Your task to perform on an android device: set default search engine in the chrome app Image 0: 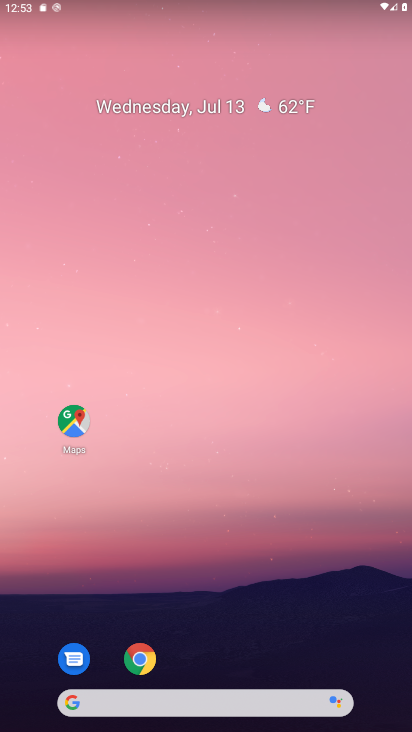
Step 0: drag from (206, 694) to (98, 109)
Your task to perform on an android device: set default search engine in the chrome app Image 1: 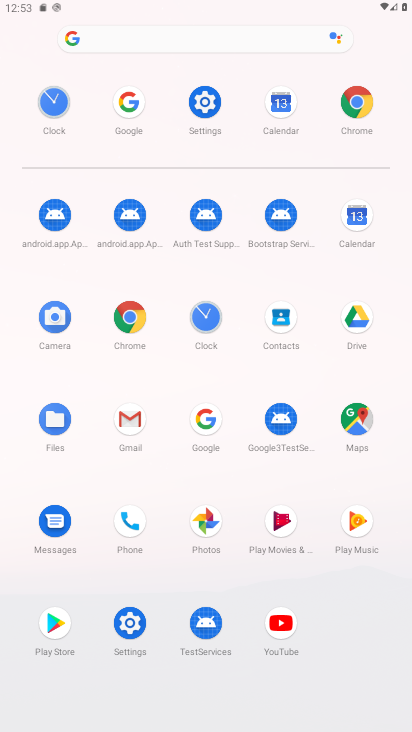
Step 1: click (128, 315)
Your task to perform on an android device: set default search engine in the chrome app Image 2: 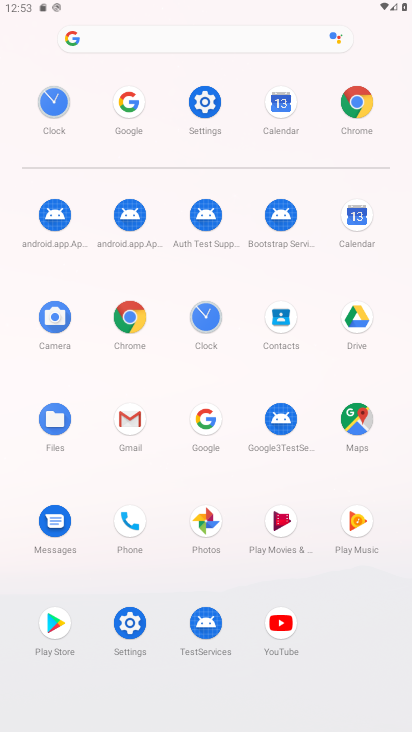
Step 2: click (128, 315)
Your task to perform on an android device: set default search engine in the chrome app Image 3: 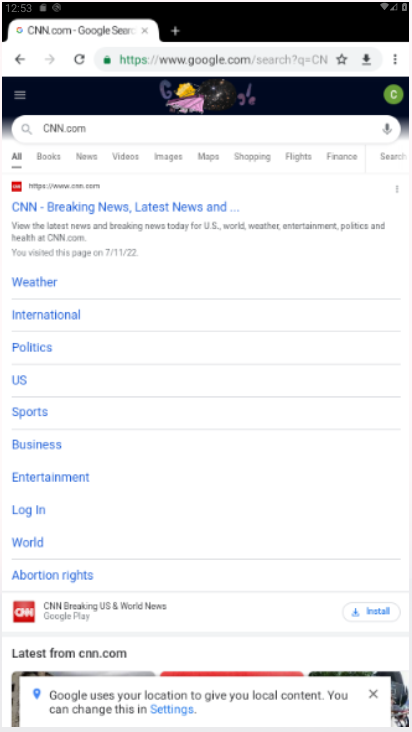
Step 3: click (129, 314)
Your task to perform on an android device: set default search engine in the chrome app Image 4: 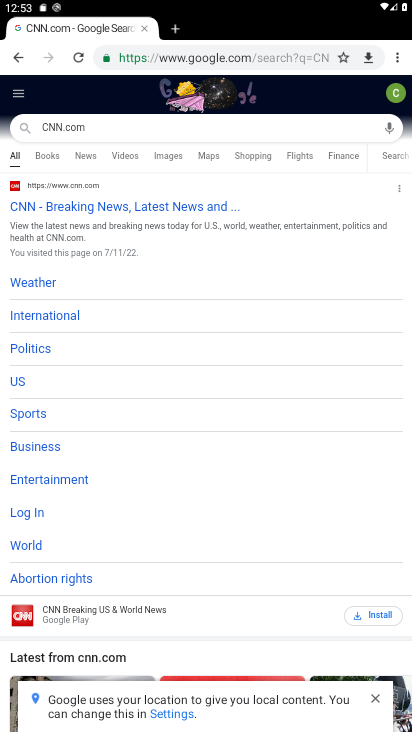
Step 4: click (17, 52)
Your task to perform on an android device: set default search engine in the chrome app Image 5: 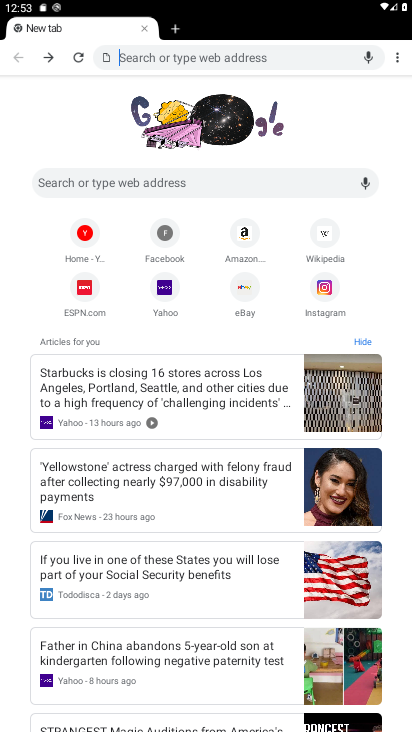
Step 5: drag from (398, 57) to (280, 290)
Your task to perform on an android device: set default search engine in the chrome app Image 6: 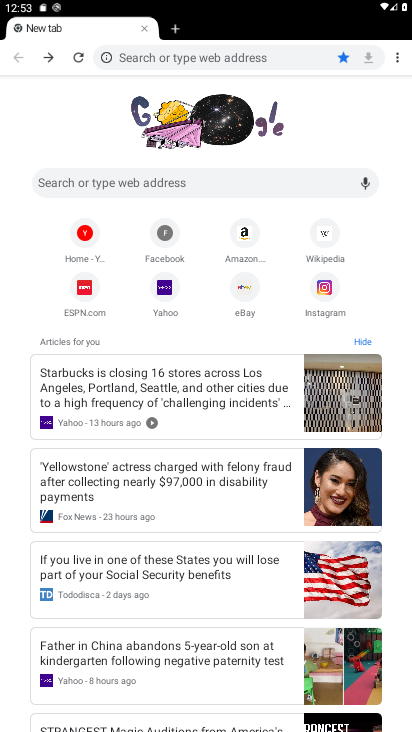
Step 6: click (279, 304)
Your task to perform on an android device: set default search engine in the chrome app Image 7: 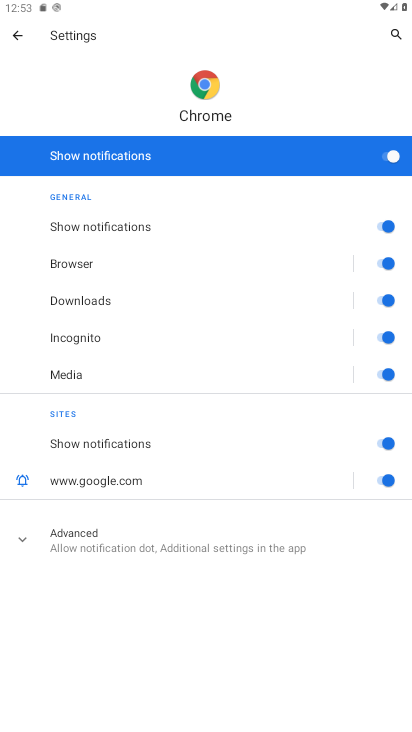
Step 7: click (12, 25)
Your task to perform on an android device: set default search engine in the chrome app Image 8: 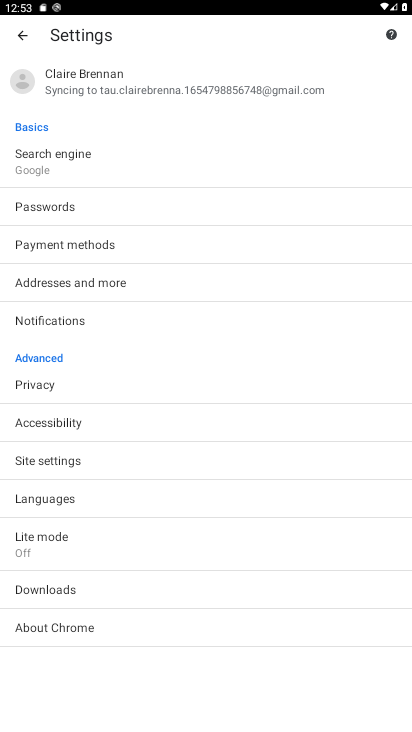
Step 8: click (32, 161)
Your task to perform on an android device: set default search engine in the chrome app Image 9: 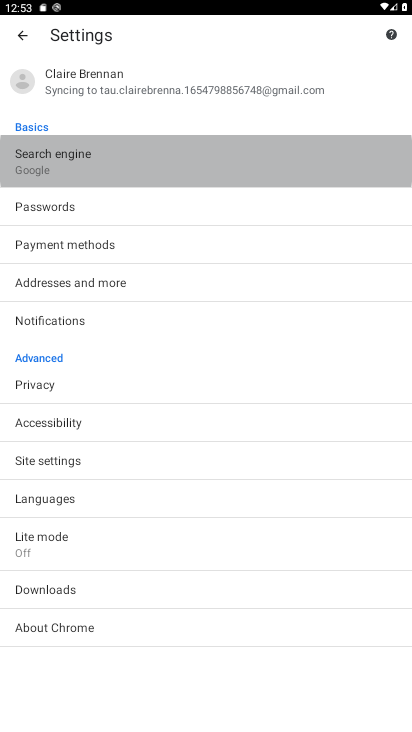
Step 9: click (32, 161)
Your task to perform on an android device: set default search engine in the chrome app Image 10: 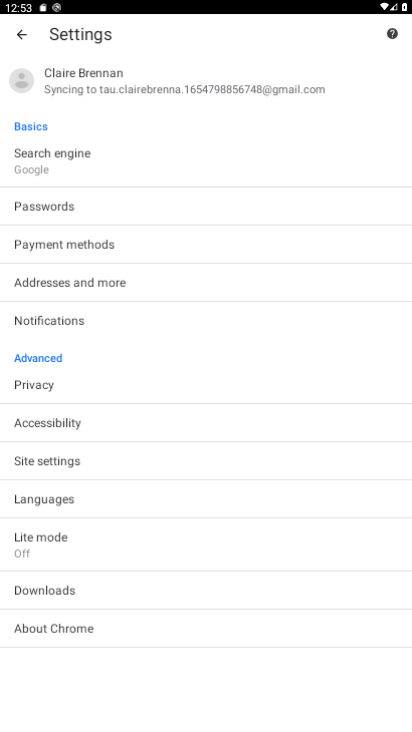
Step 10: click (32, 161)
Your task to perform on an android device: set default search engine in the chrome app Image 11: 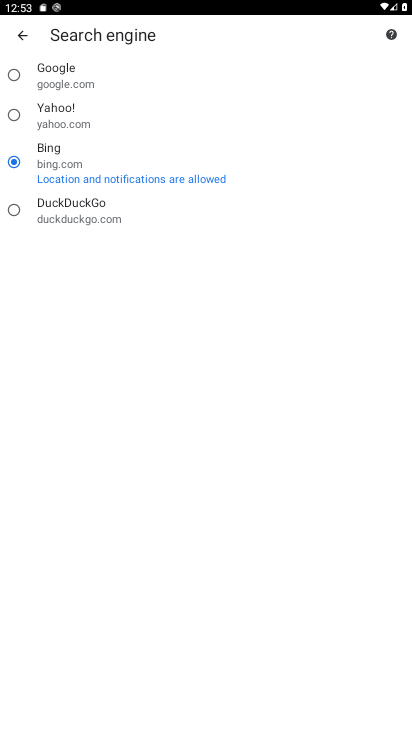
Step 11: click (13, 77)
Your task to perform on an android device: set default search engine in the chrome app Image 12: 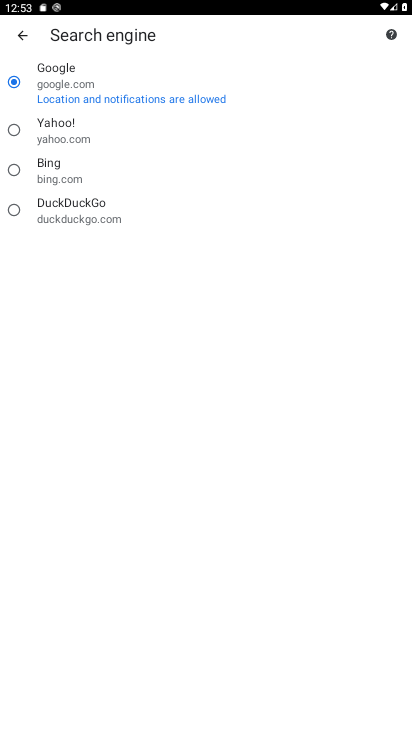
Step 12: task complete